Your task to perform on an android device: toggle priority inbox in the gmail app Image 0: 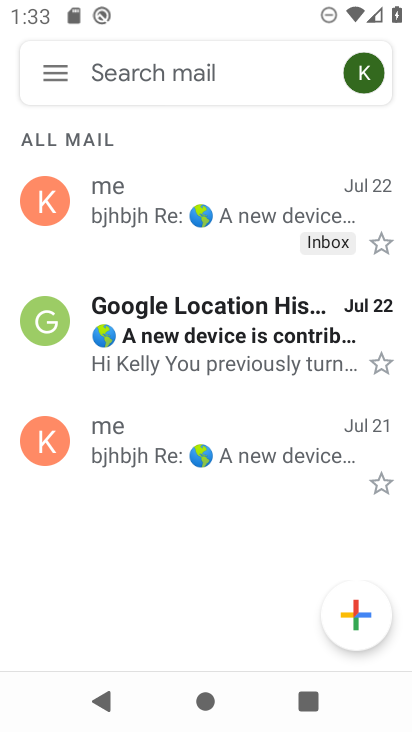
Step 0: press home button
Your task to perform on an android device: toggle priority inbox in the gmail app Image 1: 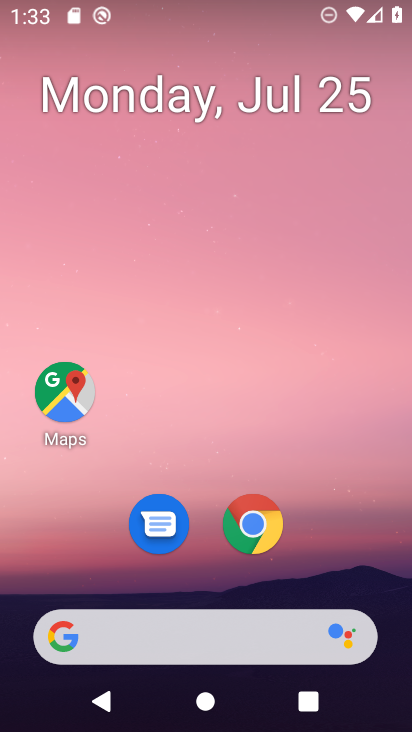
Step 1: drag from (217, 643) to (341, 166)
Your task to perform on an android device: toggle priority inbox in the gmail app Image 2: 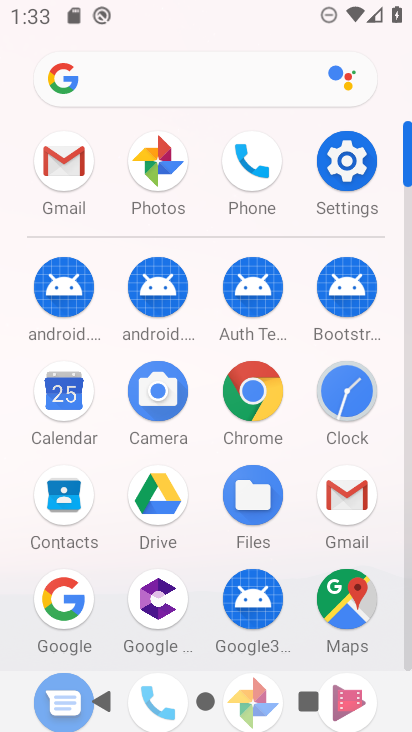
Step 2: click (66, 170)
Your task to perform on an android device: toggle priority inbox in the gmail app Image 3: 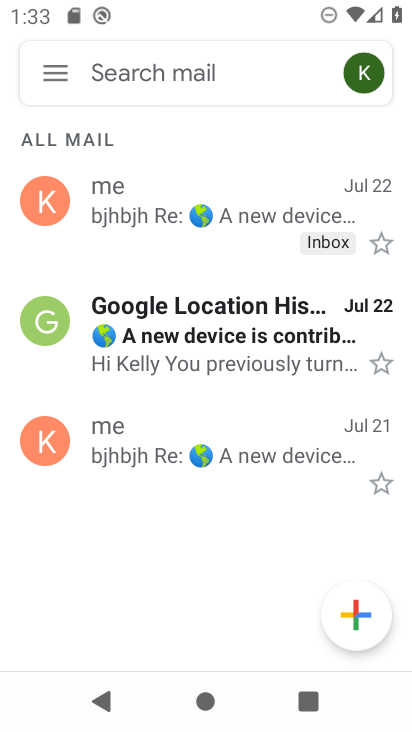
Step 3: click (49, 70)
Your task to perform on an android device: toggle priority inbox in the gmail app Image 4: 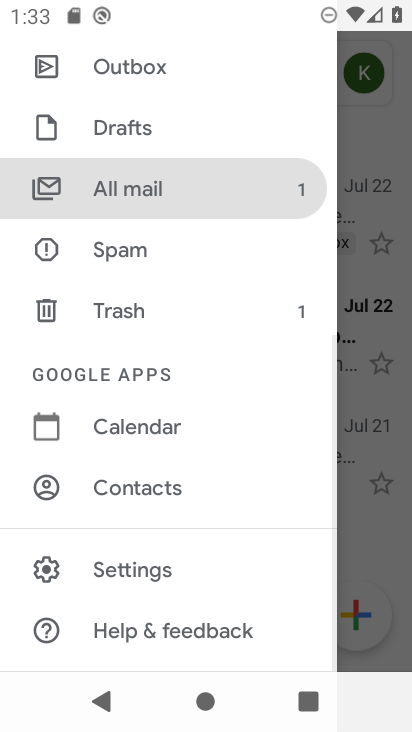
Step 4: click (129, 571)
Your task to perform on an android device: toggle priority inbox in the gmail app Image 5: 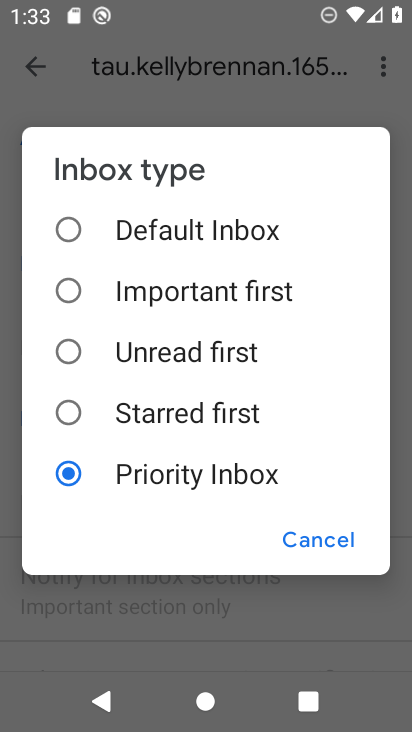
Step 5: click (67, 226)
Your task to perform on an android device: toggle priority inbox in the gmail app Image 6: 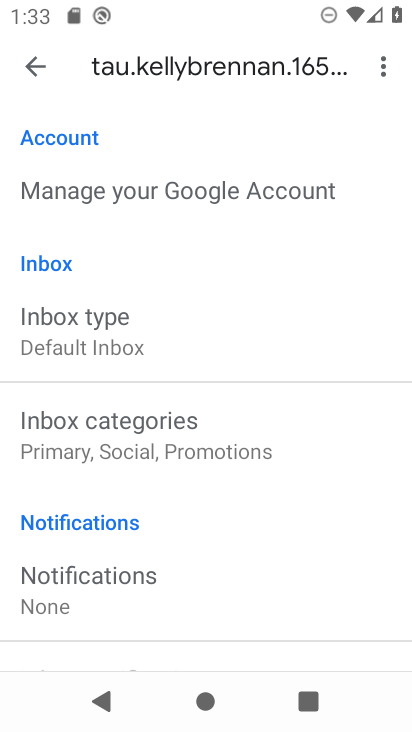
Step 6: task complete